Your task to perform on an android device: install app "Reddit" Image 0: 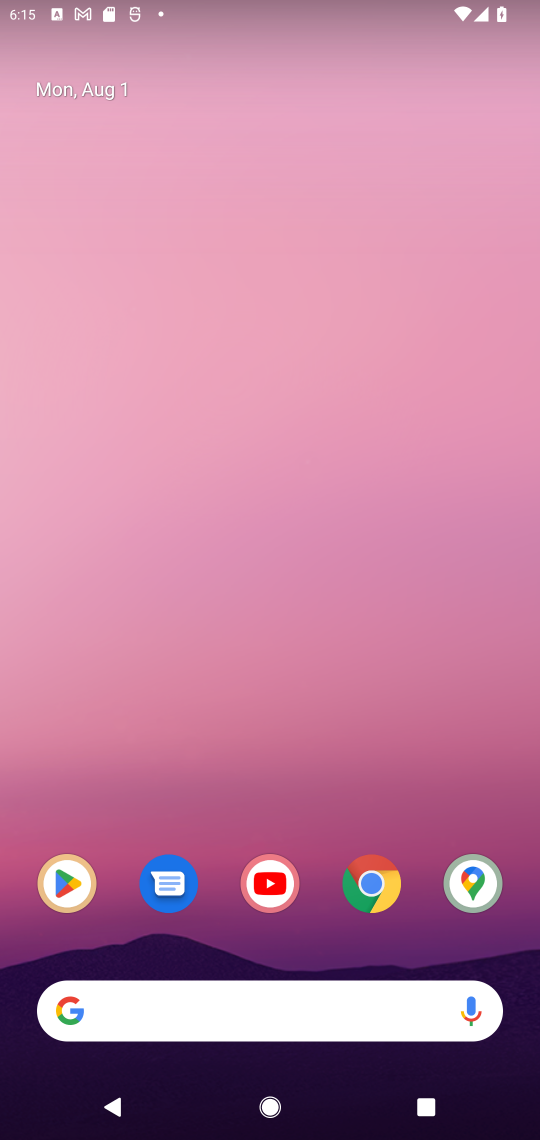
Step 0: click (218, 84)
Your task to perform on an android device: install app "Reddit" Image 1: 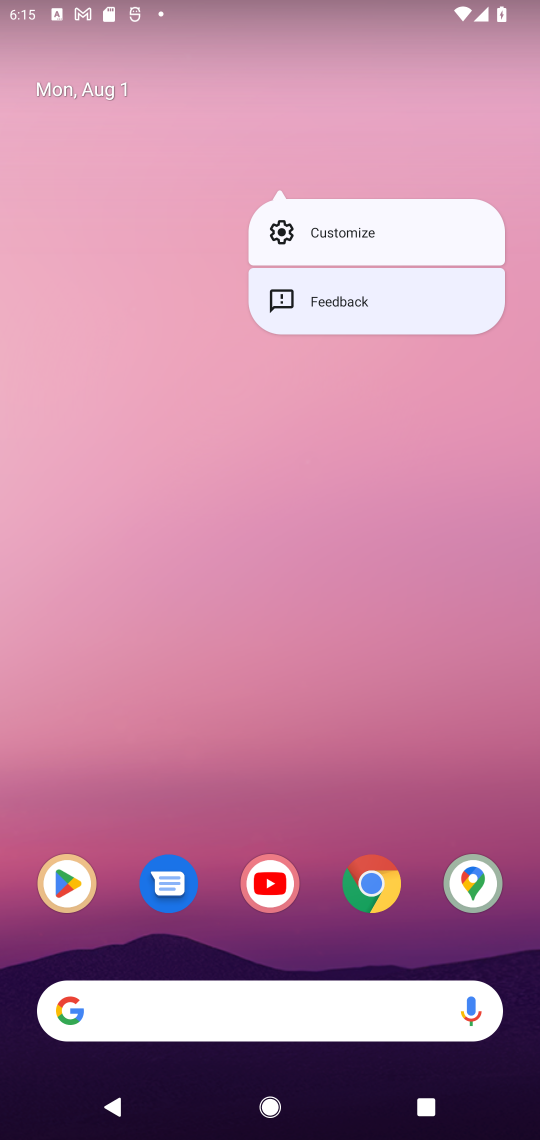
Step 1: click (66, 881)
Your task to perform on an android device: install app "Reddit" Image 2: 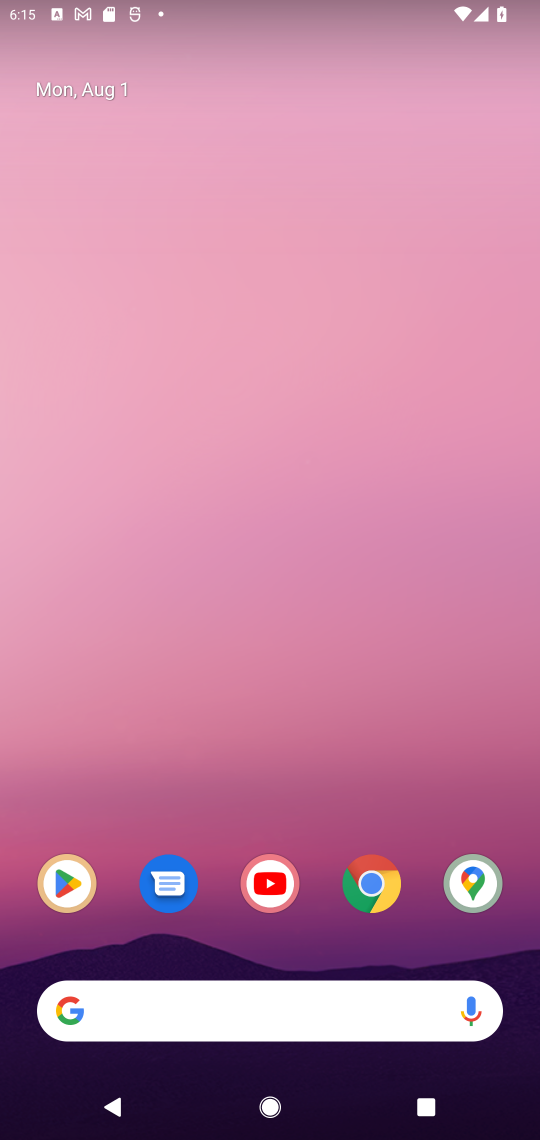
Step 2: click (69, 905)
Your task to perform on an android device: install app "Reddit" Image 3: 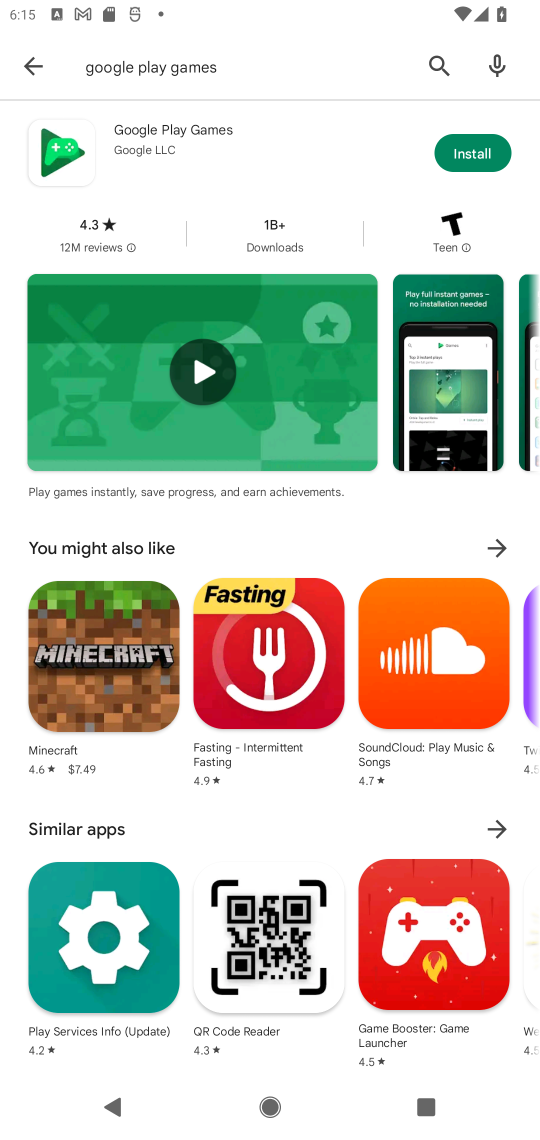
Step 3: click (32, 64)
Your task to perform on an android device: install app "Reddit" Image 4: 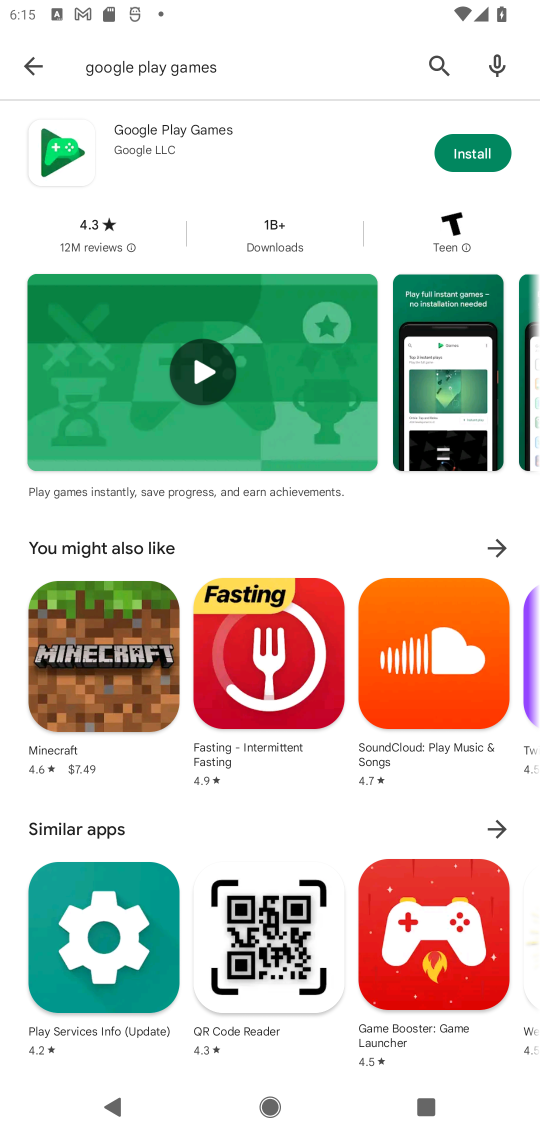
Step 4: click (25, 63)
Your task to perform on an android device: install app "Reddit" Image 5: 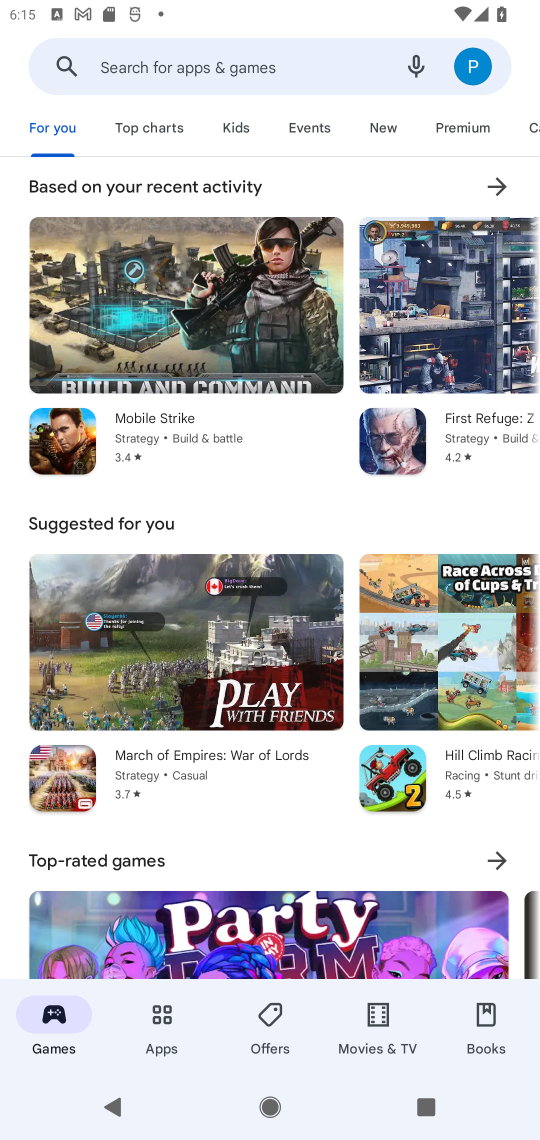
Step 5: click (211, 56)
Your task to perform on an android device: install app "Reddit" Image 6: 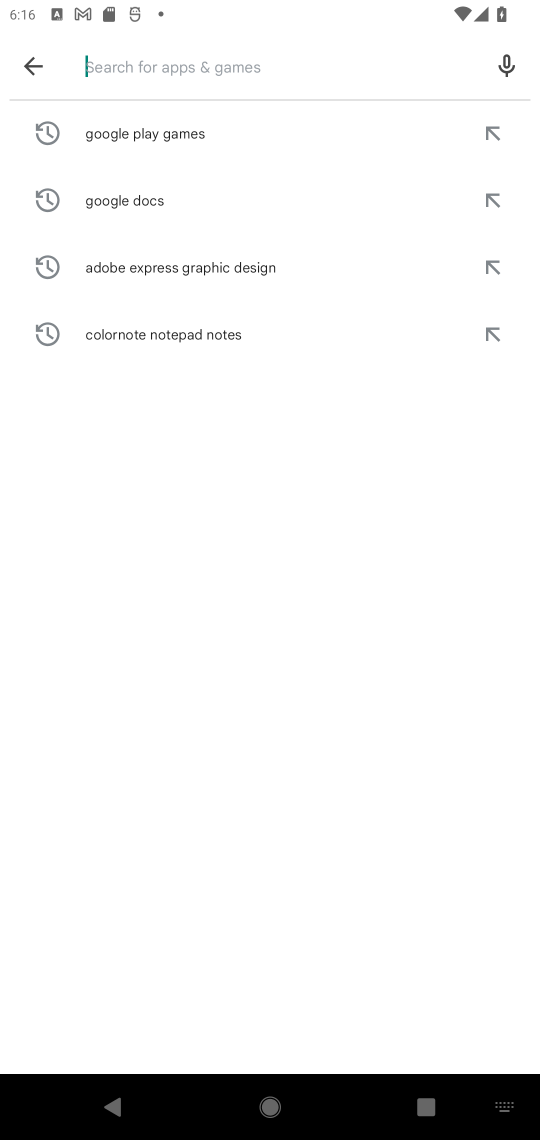
Step 6: type "Reddit"
Your task to perform on an android device: install app "Reddit" Image 7: 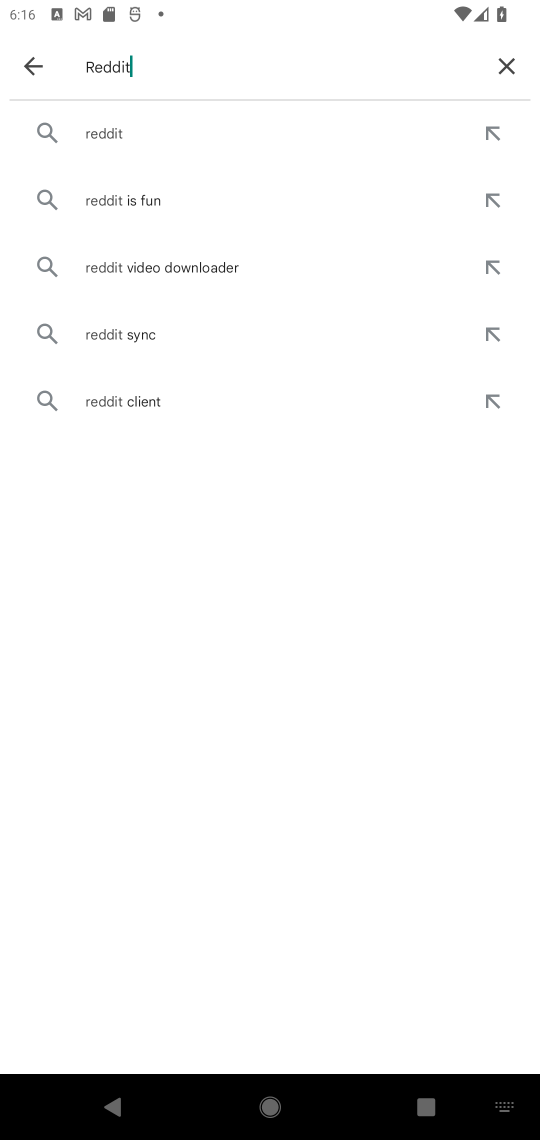
Step 7: click (139, 137)
Your task to perform on an android device: install app "Reddit" Image 8: 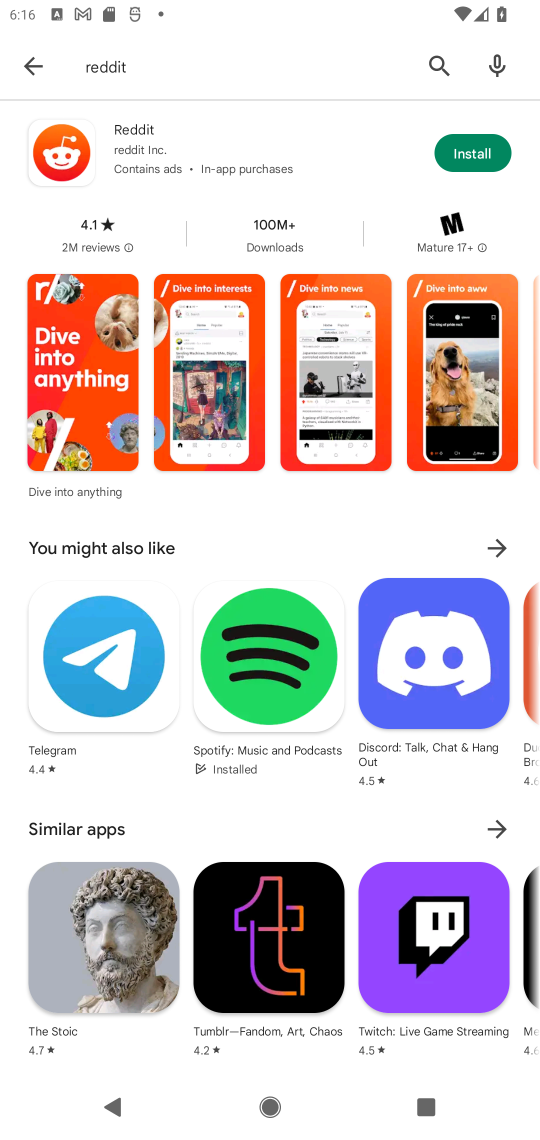
Step 8: click (483, 139)
Your task to perform on an android device: install app "Reddit" Image 9: 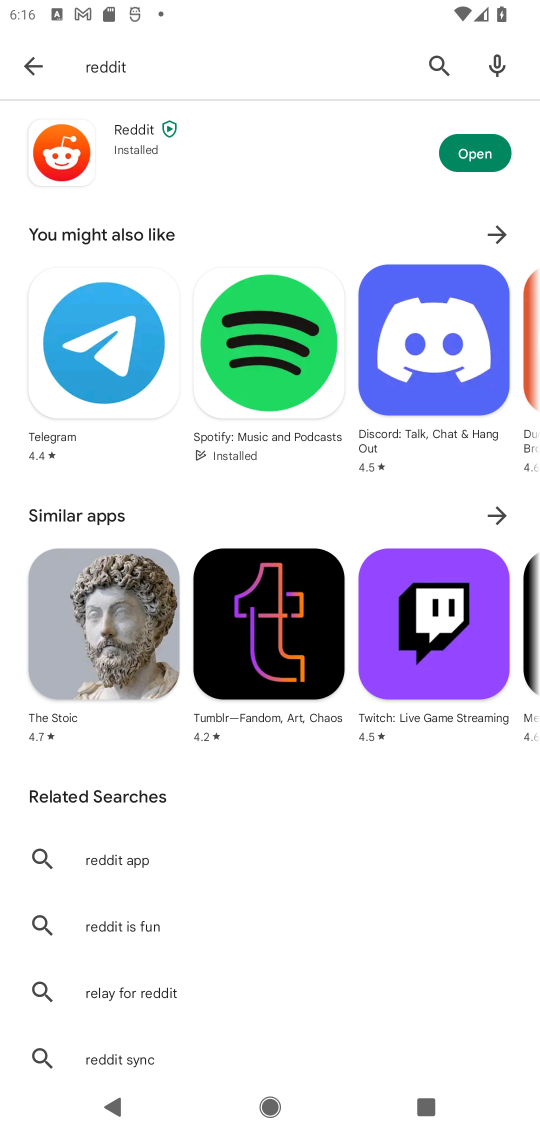
Step 9: click (481, 151)
Your task to perform on an android device: install app "Reddit" Image 10: 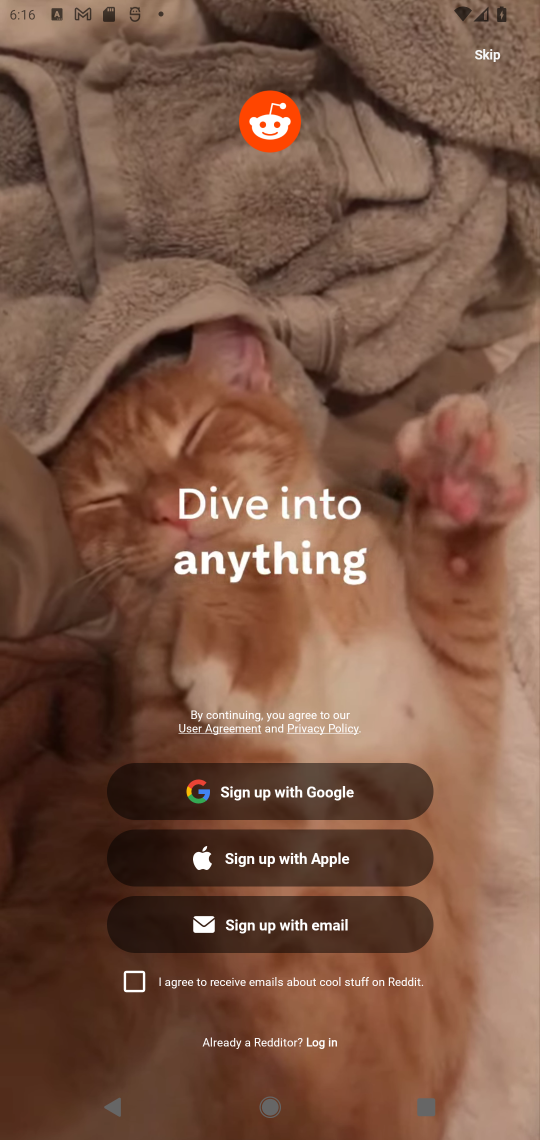
Step 10: task complete